Your task to perform on an android device: visit the assistant section in the google photos Image 0: 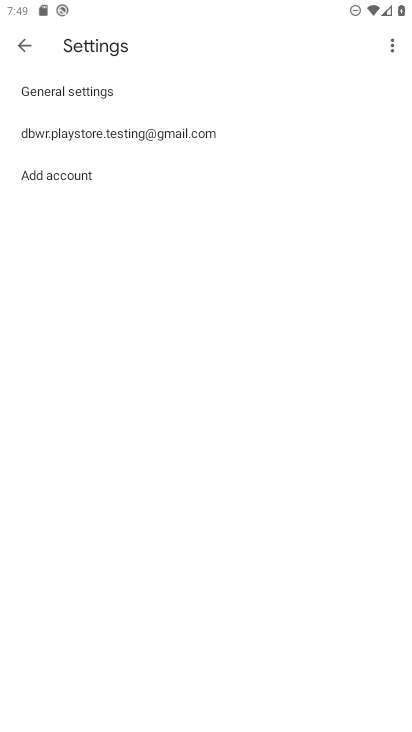
Step 0: press home button
Your task to perform on an android device: visit the assistant section in the google photos Image 1: 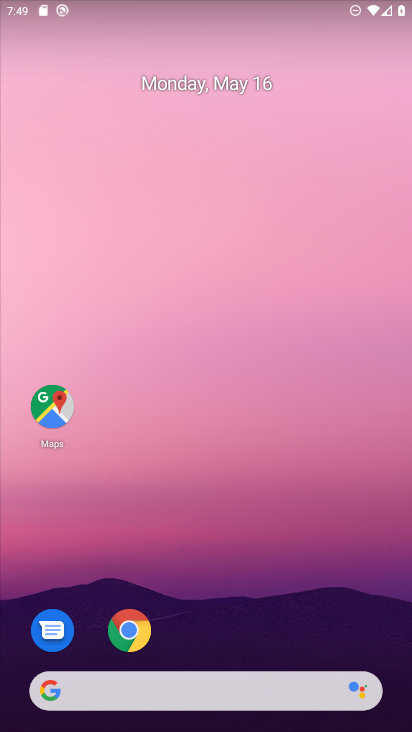
Step 1: drag from (208, 635) to (139, 150)
Your task to perform on an android device: visit the assistant section in the google photos Image 2: 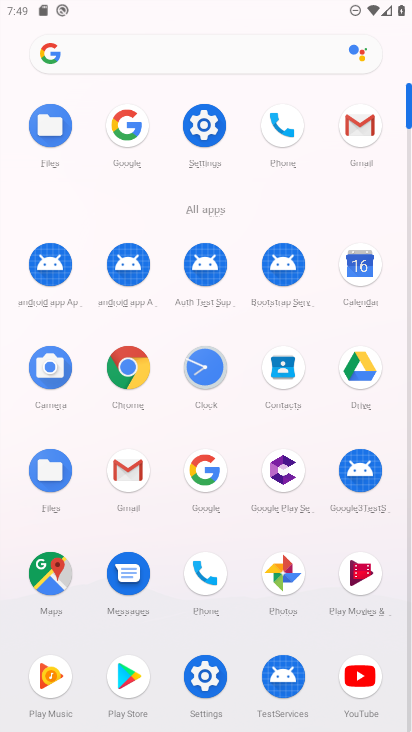
Step 2: click (272, 569)
Your task to perform on an android device: visit the assistant section in the google photos Image 3: 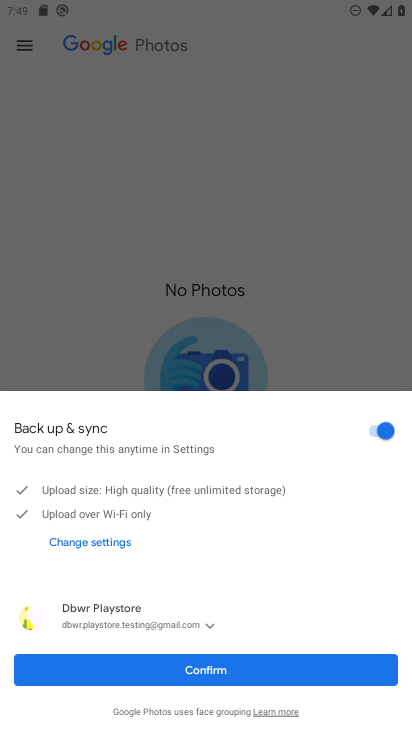
Step 3: click (228, 662)
Your task to perform on an android device: visit the assistant section in the google photos Image 4: 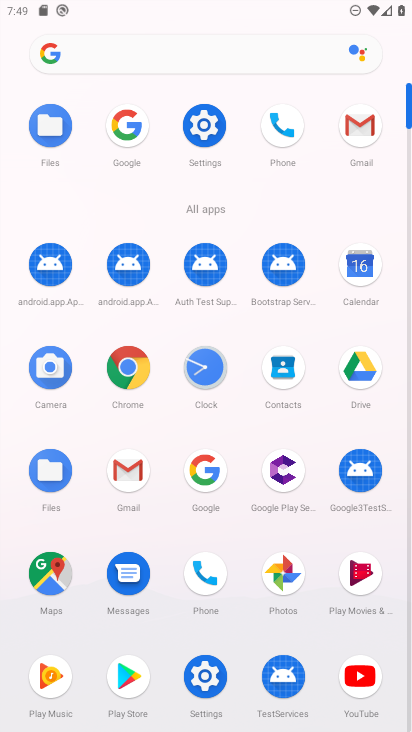
Step 4: click (279, 578)
Your task to perform on an android device: visit the assistant section in the google photos Image 5: 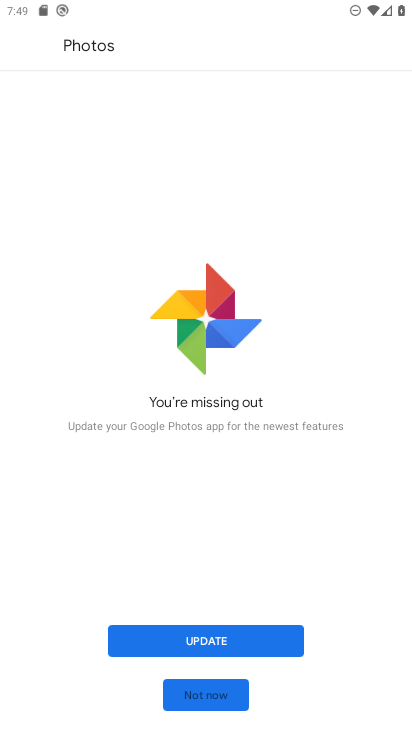
Step 5: click (239, 633)
Your task to perform on an android device: visit the assistant section in the google photos Image 6: 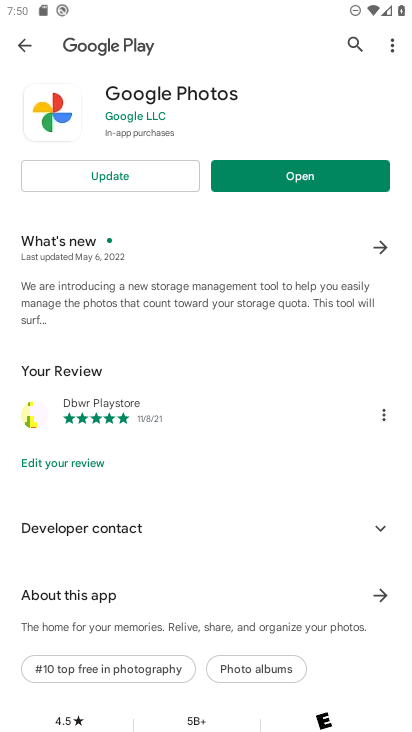
Step 6: click (158, 175)
Your task to perform on an android device: visit the assistant section in the google photos Image 7: 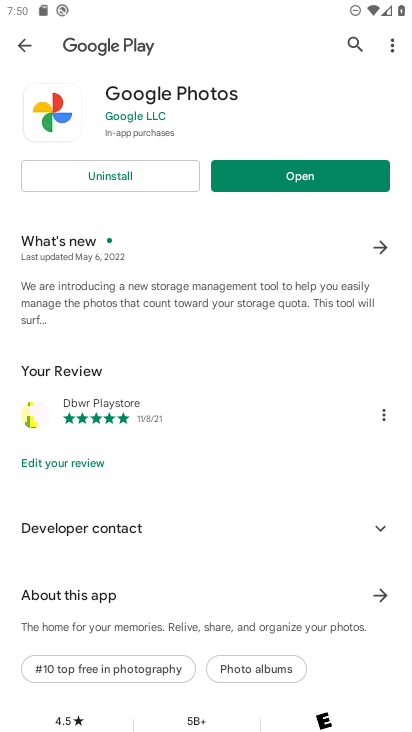
Step 7: click (296, 182)
Your task to perform on an android device: visit the assistant section in the google photos Image 8: 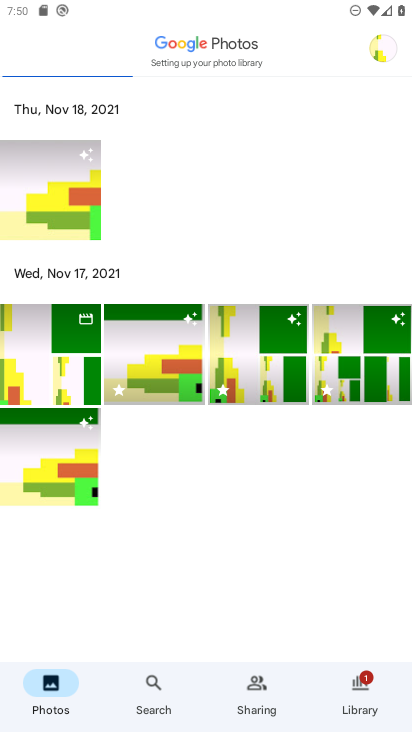
Step 8: click (367, 705)
Your task to perform on an android device: visit the assistant section in the google photos Image 9: 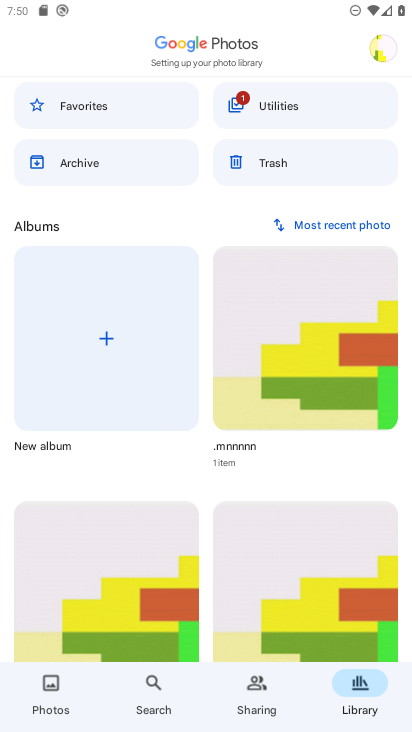
Step 9: drag from (280, 498) to (209, 0)
Your task to perform on an android device: visit the assistant section in the google photos Image 10: 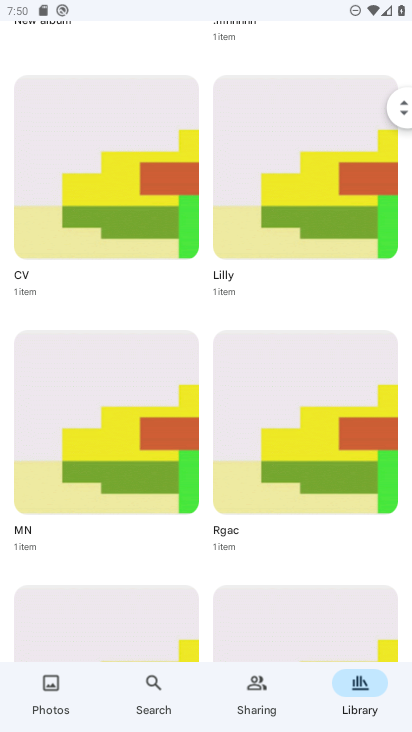
Step 10: drag from (282, 101) to (201, 601)
Your task to perform on an android device: visit the assistant section in the google photos Image 11: 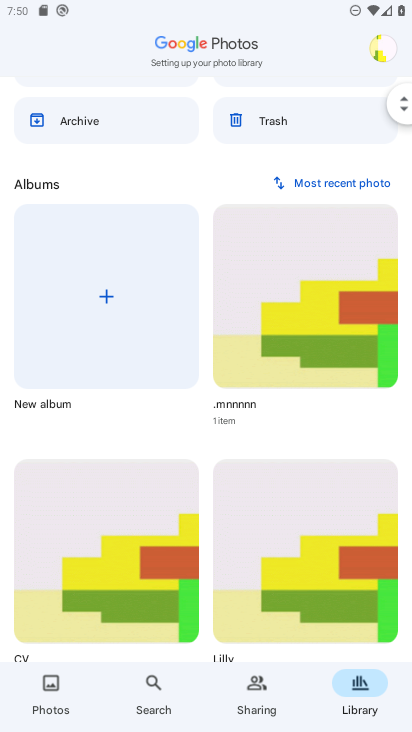
Step 11: click (374, 39)
Your task to perform on an android device: visit the assistant section in the google photos Image 12: 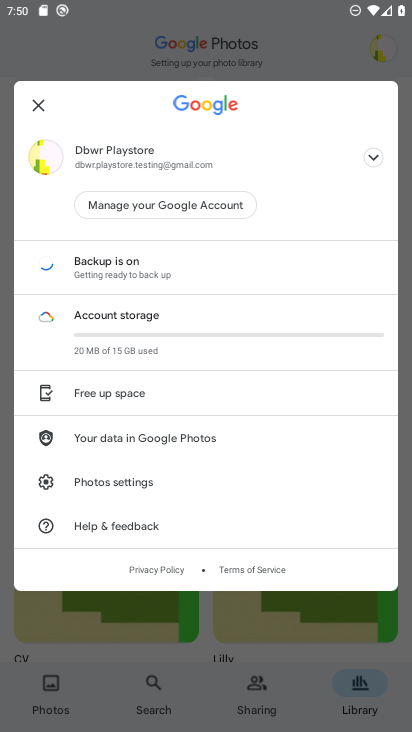
Step 12: drag from (251, 495) to (266, 210)
Your task to perform on an android device: visit the assistant section in the google photos Image 13: 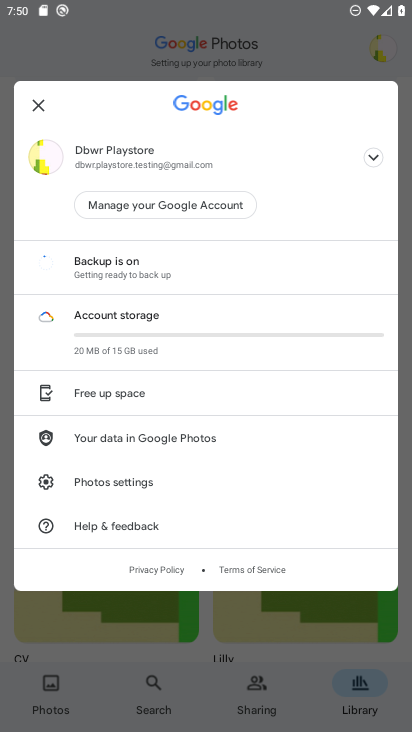
Step 13: click (135, 483)
Your task to perform on an android device: visit the assistant section in the google photos Image 14: 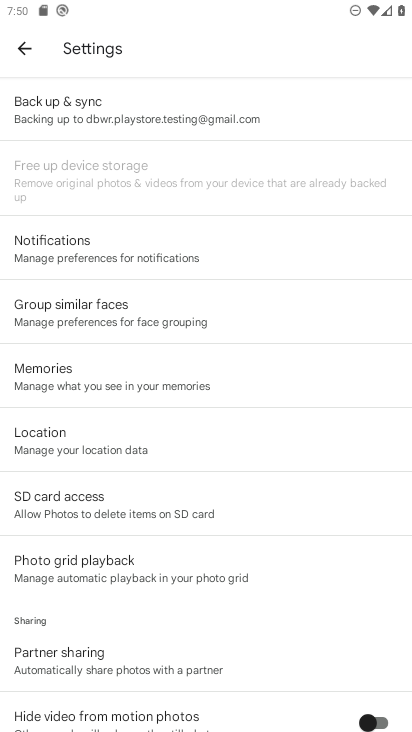
Step 14: drag from (191, 594) to (136, 196)
Your task to perform on an android device: visit the assistant section in the google photos Image 15: 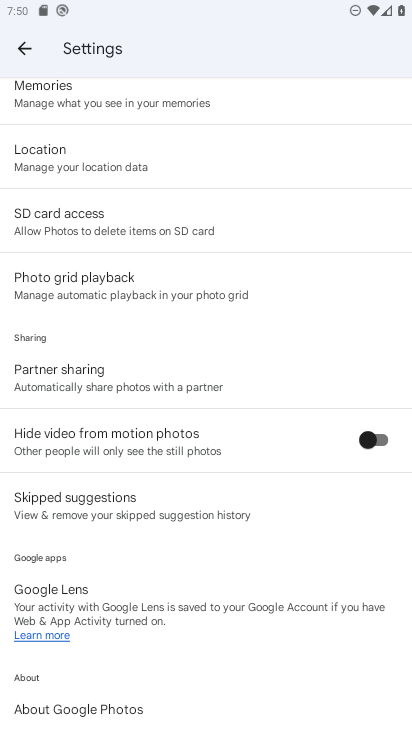
Step 15: drag from (164, 561) to (198, 78)
Your task to perform on an android device: visit the assistant section in the google photos Image 16: 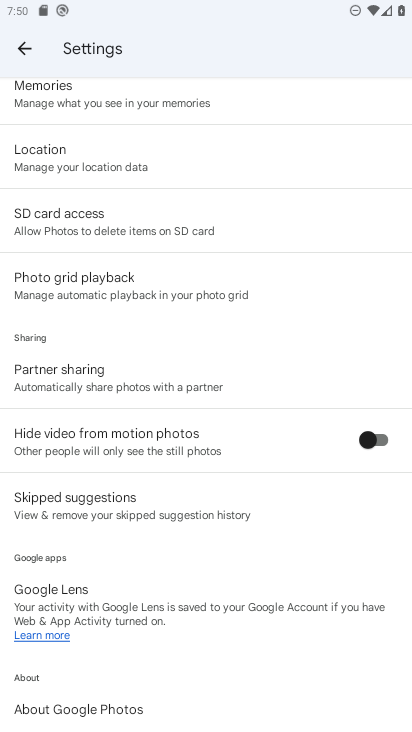
Step 16: press back button
Your task to perform on an android device: visit the assistant section in the google photos Image 17: 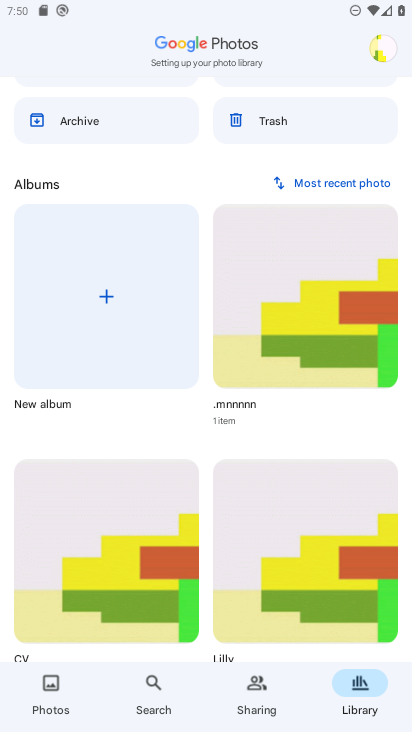
Step 17: drag from (62, 110) to (27, 397)
Your task to perform on an android device: visit the assistant section in the google photos Image 18: 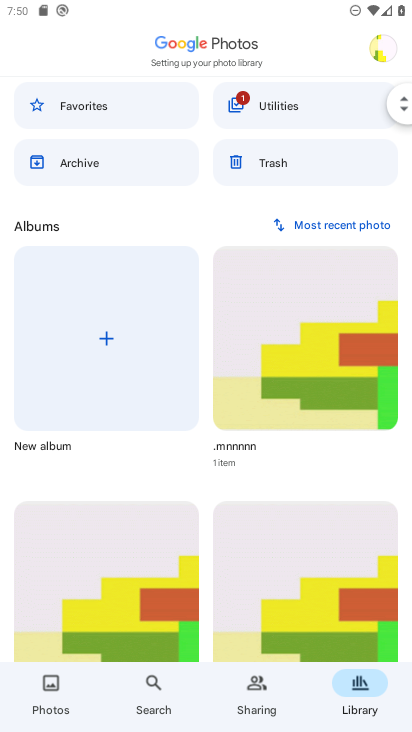
Step 18: click (54, 695)
Your task to perform on an android device: visit the assistant section in the google photos Image 19: 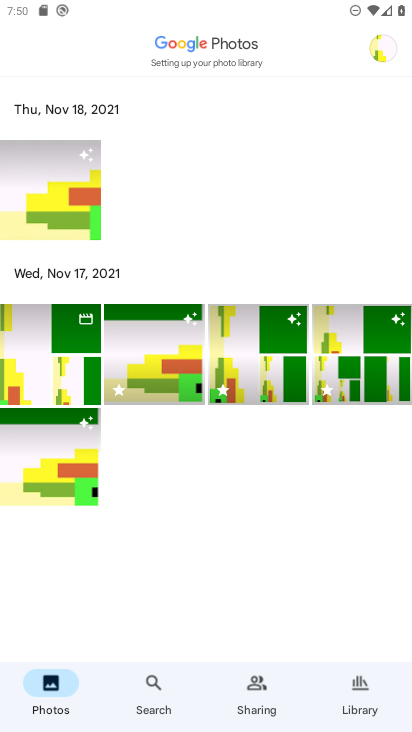
Step 19: drag from (193, 491) to (296, 87)
Your task to perform on an android device: visit the assistant section in the google photos Image 20: 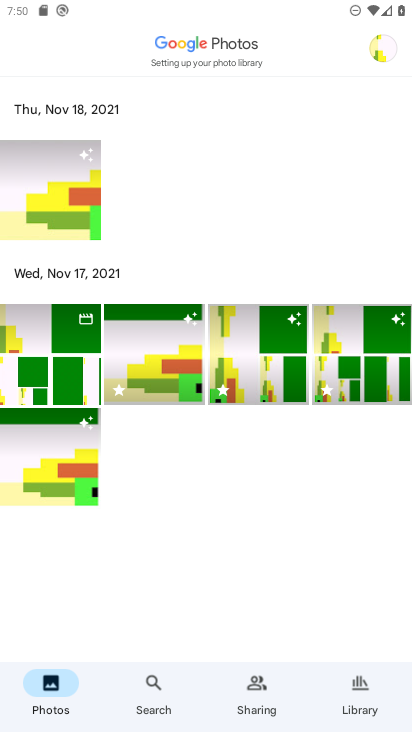
Step 20: click (372, 39)
Your task to perform on an android device: visit the assistant section in the google photos Image 21: 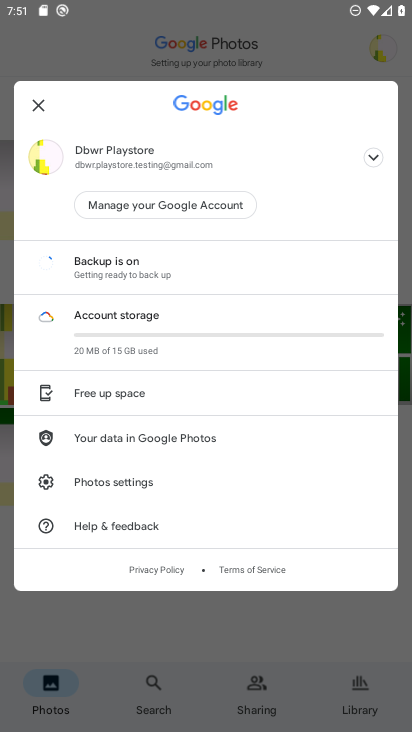
Step 21: task complete